Your task to perform on an android device: Open calendar and show me the second week of next month Image 0: 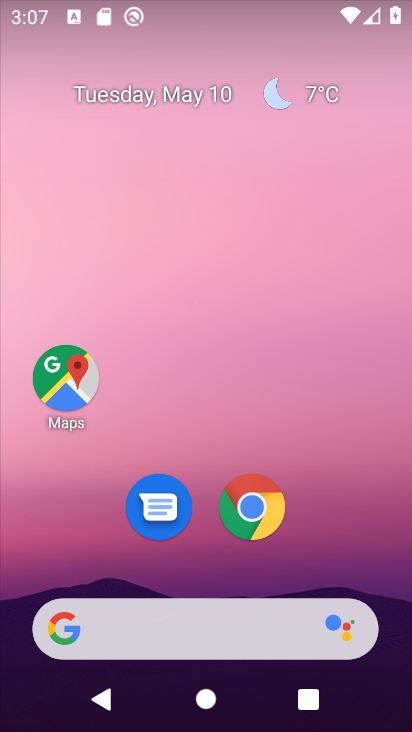
Step 0: drag from (216, 471) to (148, 165)
Your task to perform on an android device: Open calendar and show me the second week of next month Image 1: 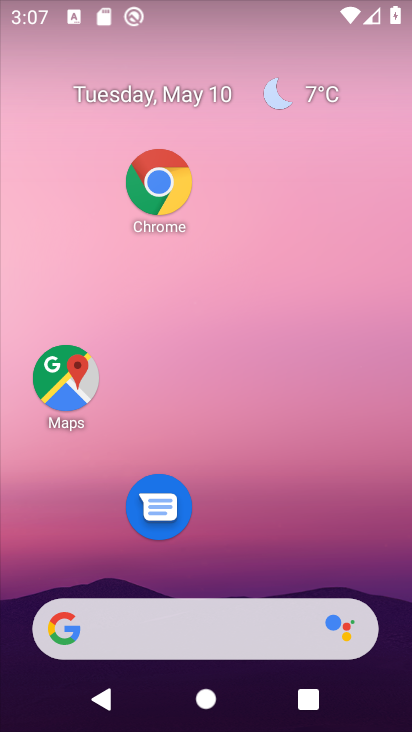
Step 1: drag from (239, 438) to (270, 40)
Your task to perform on an android device: Open calendar and show me the second week of next month Image 2: 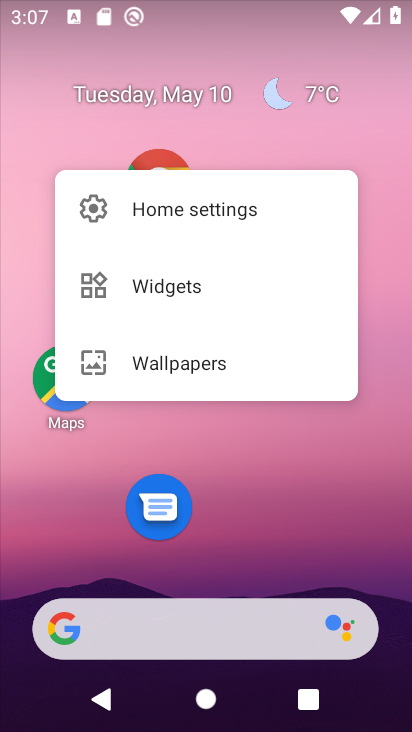
Step 2: click (315, 498)
Your task to perform on an android device: Open calendar and show me the second week of next month Image 3: 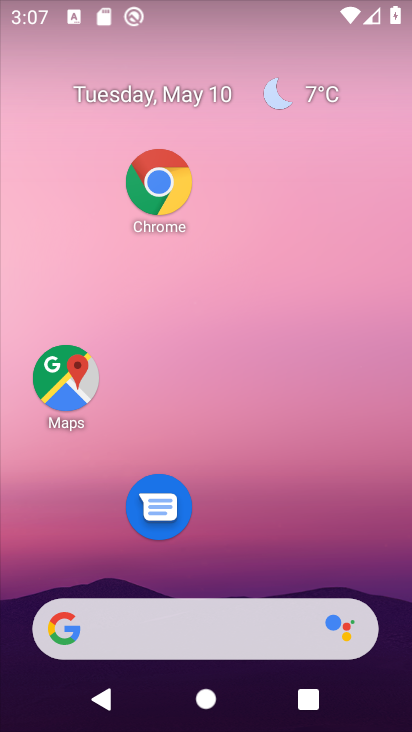
Step 3: drag from (315, 498) to (289, 62)
Your task to perform on an android device: Open calendar and show me the second week of next month Image 4: 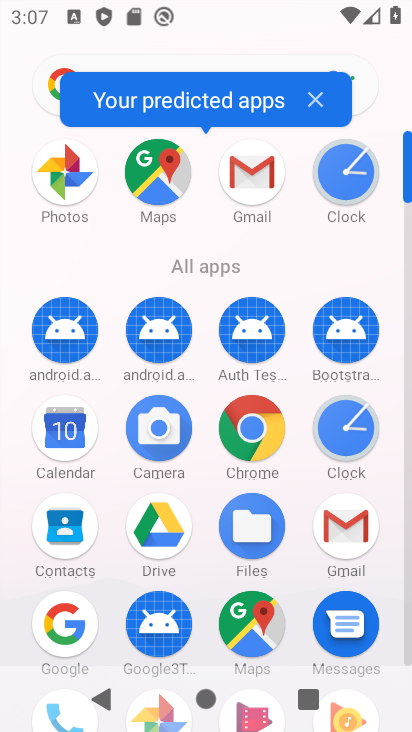
Step 4: click (406, 519)
Your task to perform on an android device: Open calendar and show me the second week of next month Image 5: 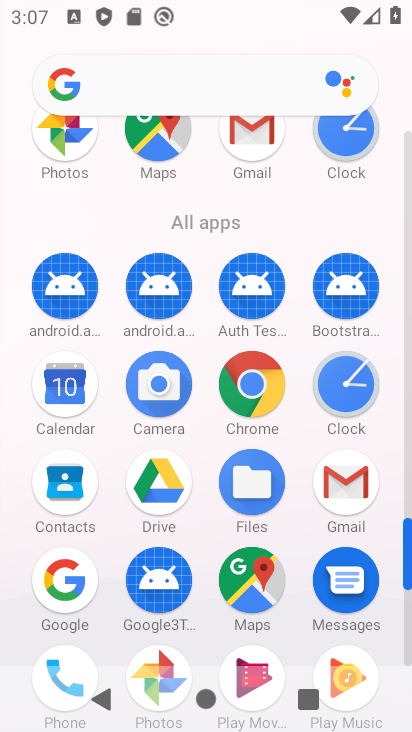
Step 5: click (404, 628)
Your task to perform on an android device: Open calendar and show me the second week of next month Image 6: 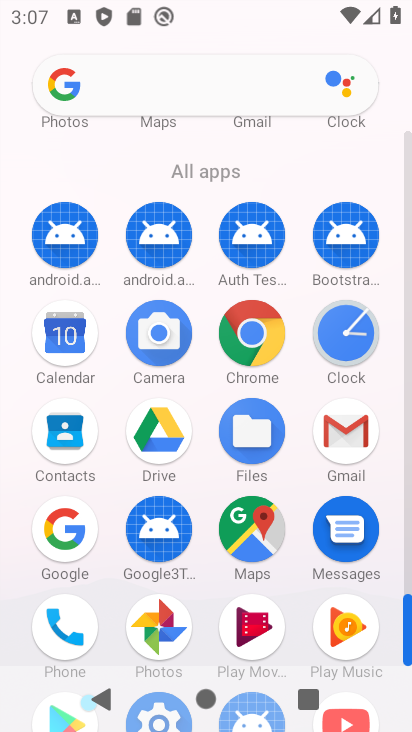
Step 6: click (404, 684)
Your task to perform on an android device: Open calendar and show me the second week of next month Image 7: 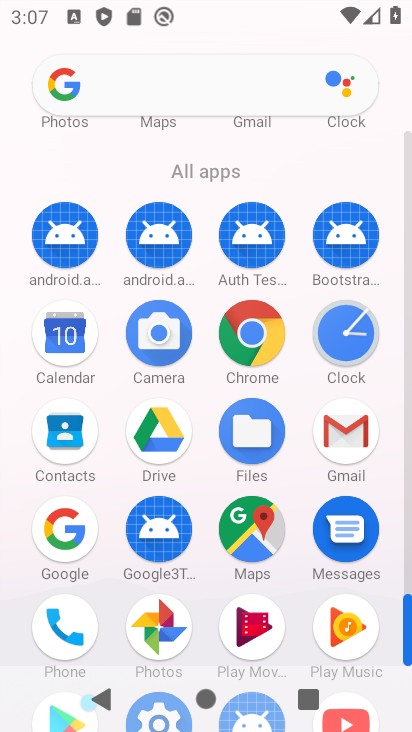
Step 7: click (404, 684)
Your task to perform on an android device: Open calendar and show me the second week of next month Image 8: 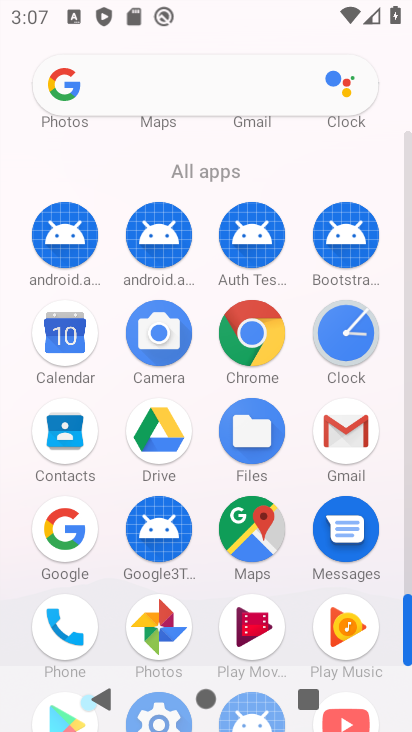
Step 8: drag from (408, 640) to (311, 671)
Your task to perform on an android device: Open calendar and show me the second week of next month Image 9: 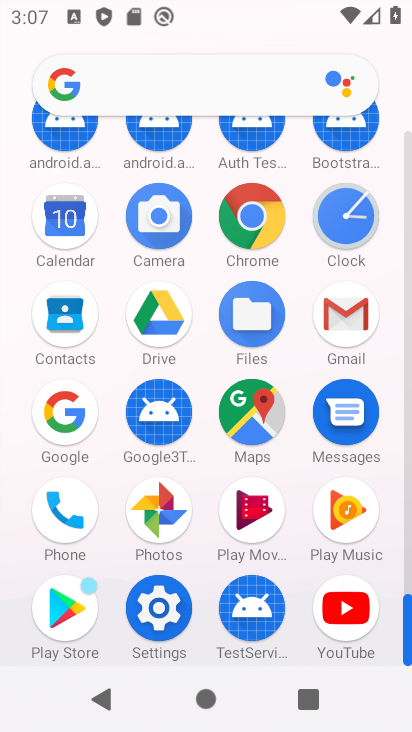
Step 9: click (148, 607)
Your task to perform on an android device: Open calendar and show me the second week of next month Image 10: 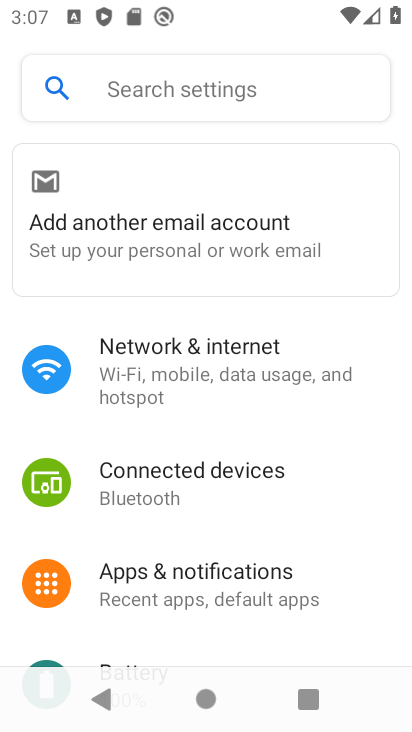
Step 10: press home button
Your task to perform on an android device: Open calendar and show me the second week of next month Image 11: 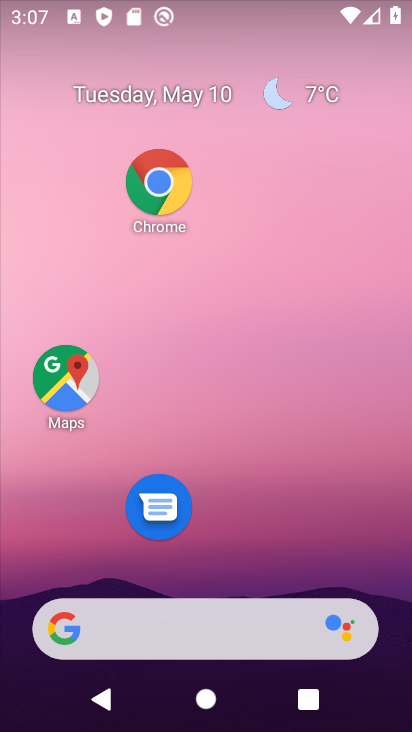
Step 11: drag from (253, 577) to (234, 210)
Your task to perform on an android device: Open calendar and show me the second week of next month Image 12: 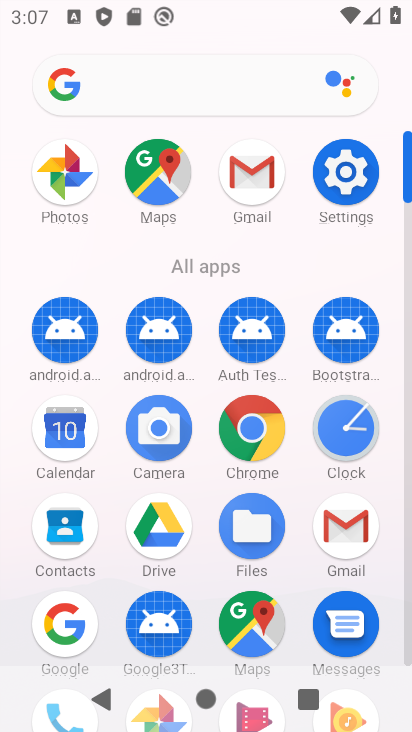
Step 12: click (59, 468)
Your task to perform on an android device: Open calendar and show me the second week of next month Image 13: 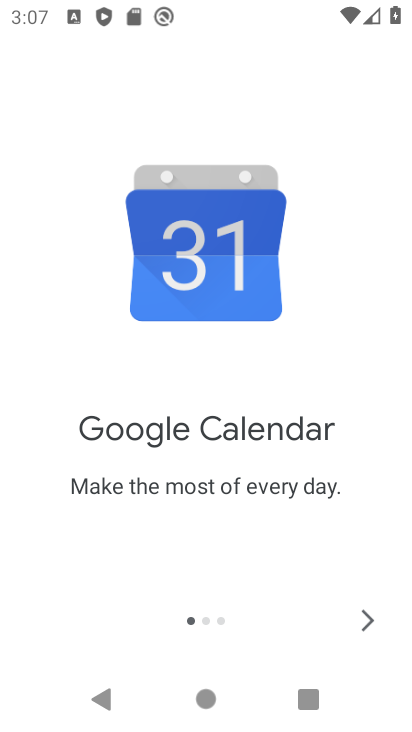
Step 13: click (372, 612)
Your task to perform on an android device: Open calendar and show me the second week of next month Image 14: 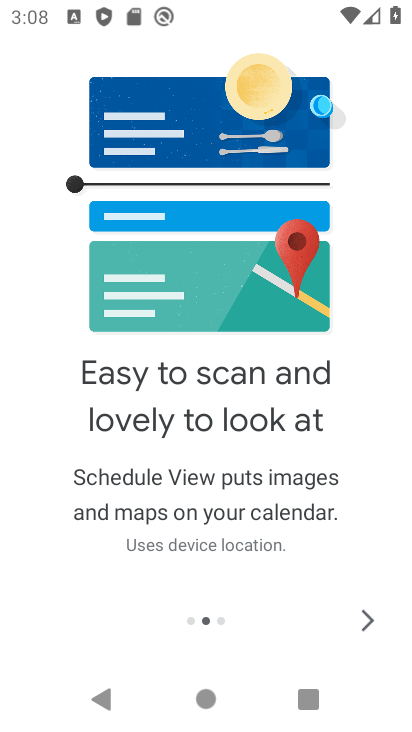
Step 14: click (372, 612)
Your task to perform on an android device: Open calendar and show me the second week of next month Image 15: 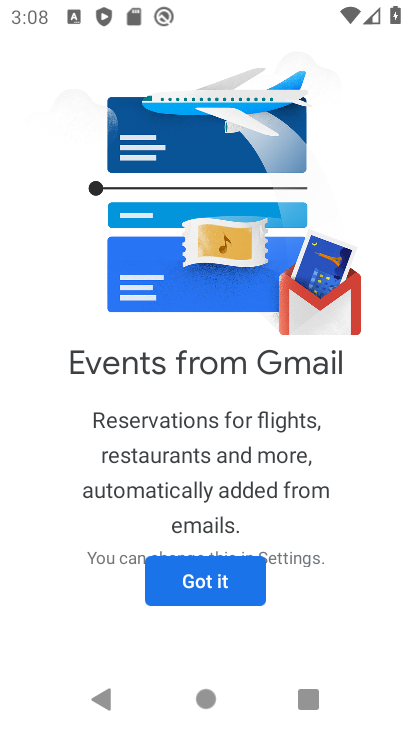
Step 15: click (193, 592)
Your task to perform on an android device: Open calendar and show me the second week of next month Image 16: 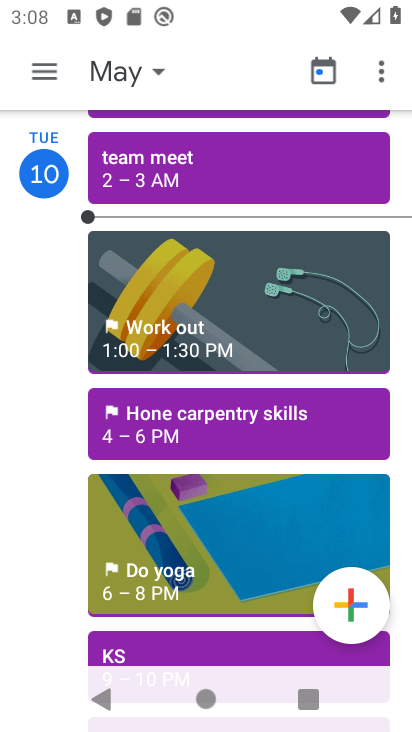
Step 16: click (148, 79)
Your task to perform on an android device: Open calendar and show me the second week of next month Image 17: 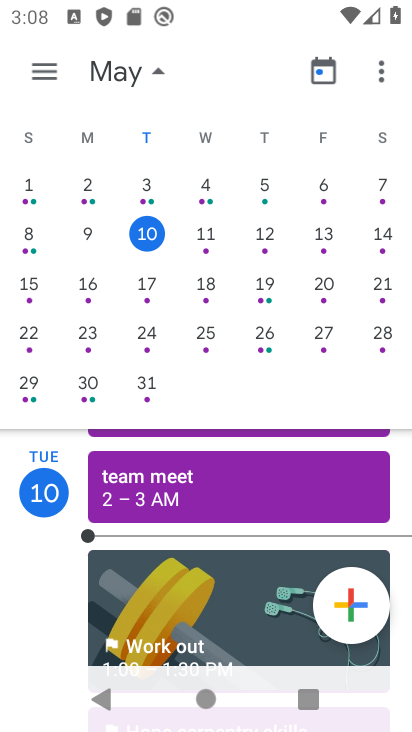
Step 17: drag from (385, 266) to (22, 368)
Your task to perform on an android device: Open calendar and show me the second week of next month Image 18: 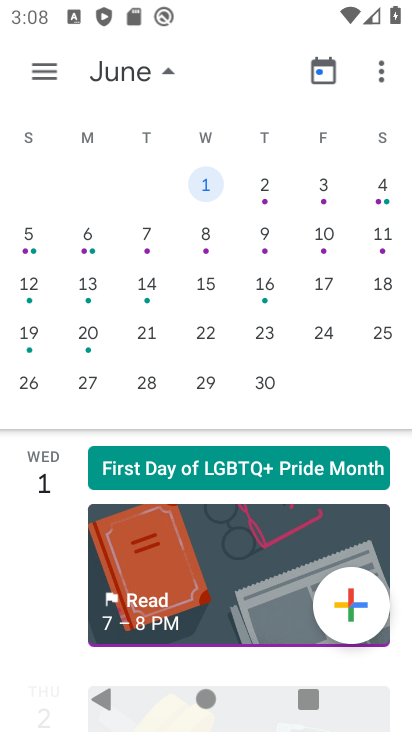
Step 18: click (207, 290)
Your task to perform on an android device: Open calendar and show me the second week of next month Image 19: 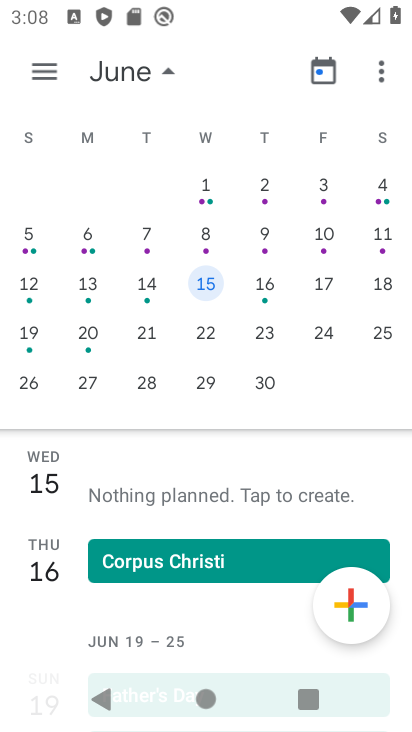
Step 19: task complete